Your task to perform on an android device: check data usage Image 0: 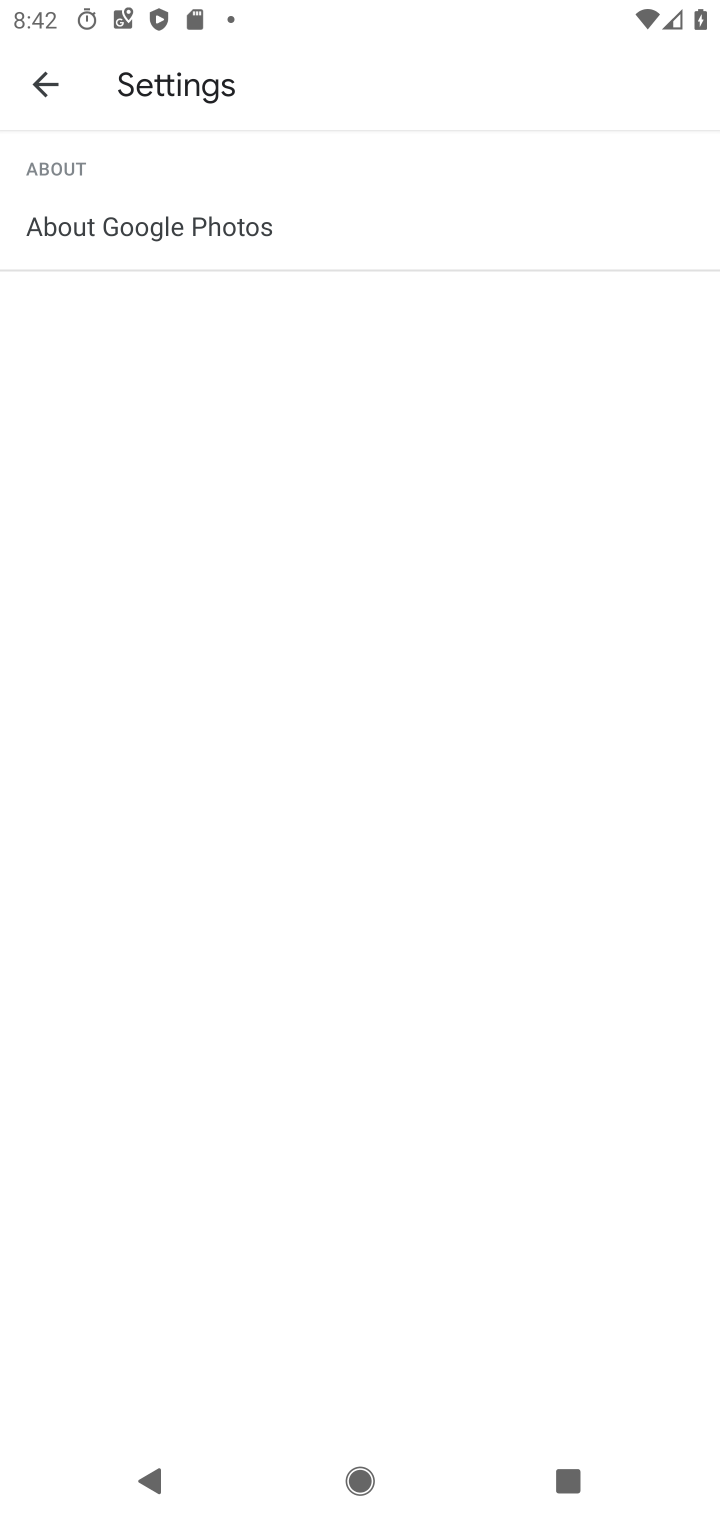
Step 0: press home button
Your task to perform on an android device: check data usage Image 1: 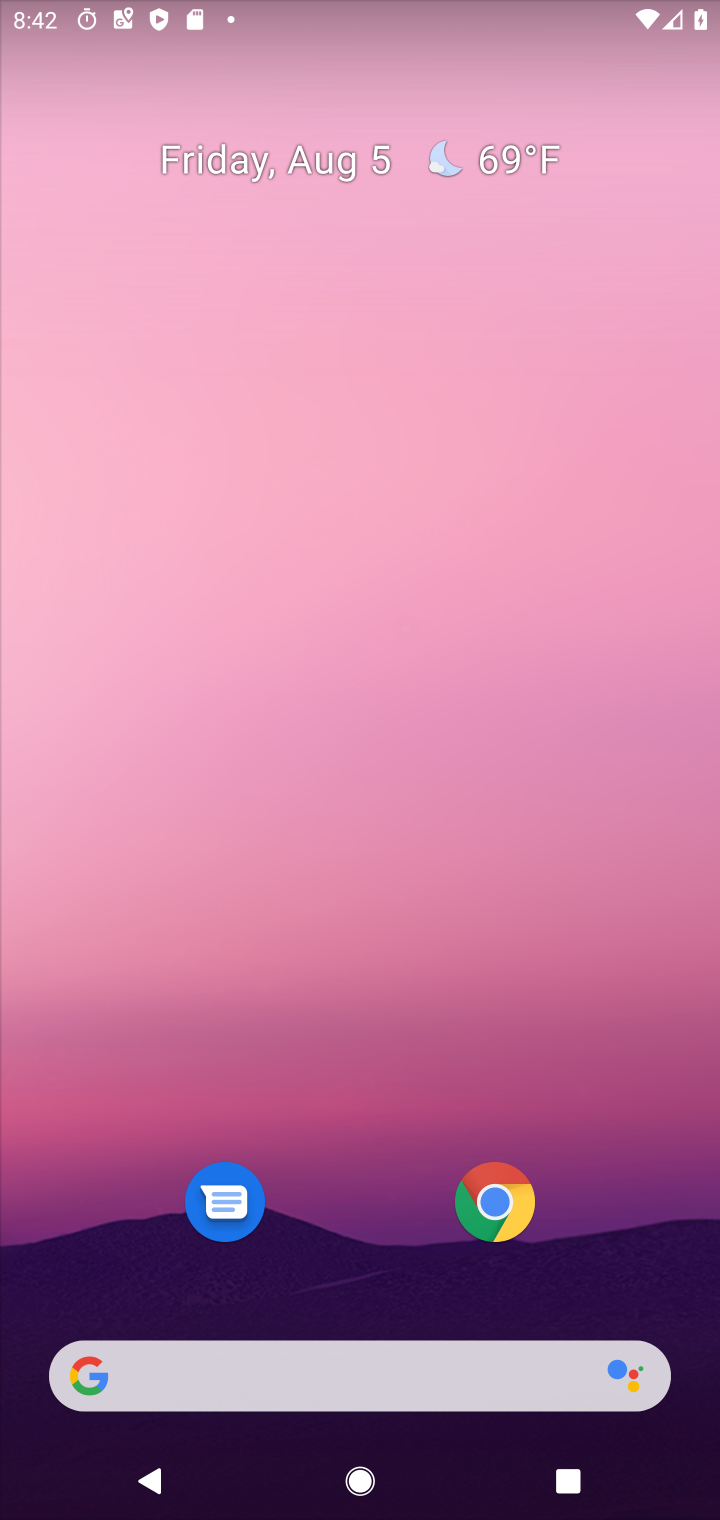
Step 1: drag from (340, 1209) to (340, 13)
Your task to perform on an android device: check data usage Image 2: 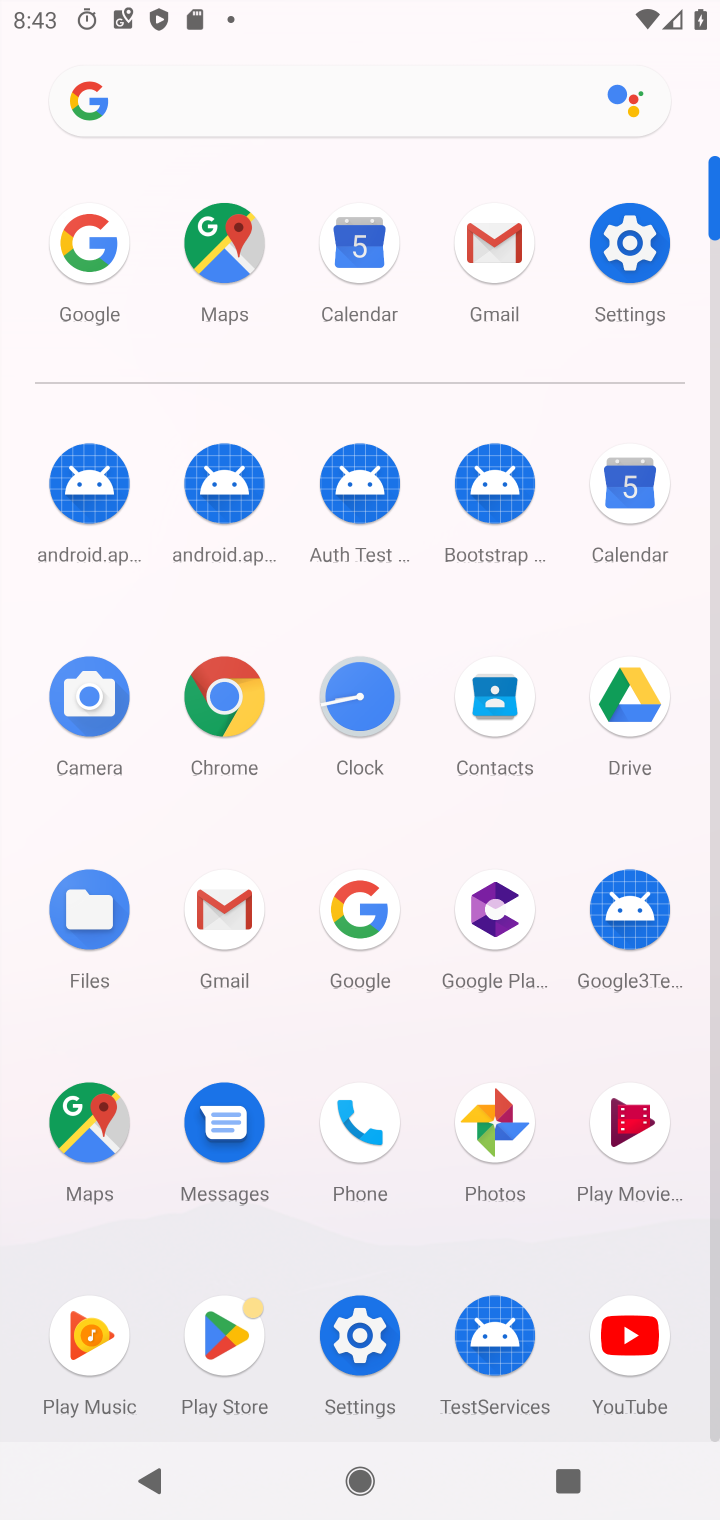
Step 2: click (357, 1334)
Your task to perform on an android device: check data usage Image 3: 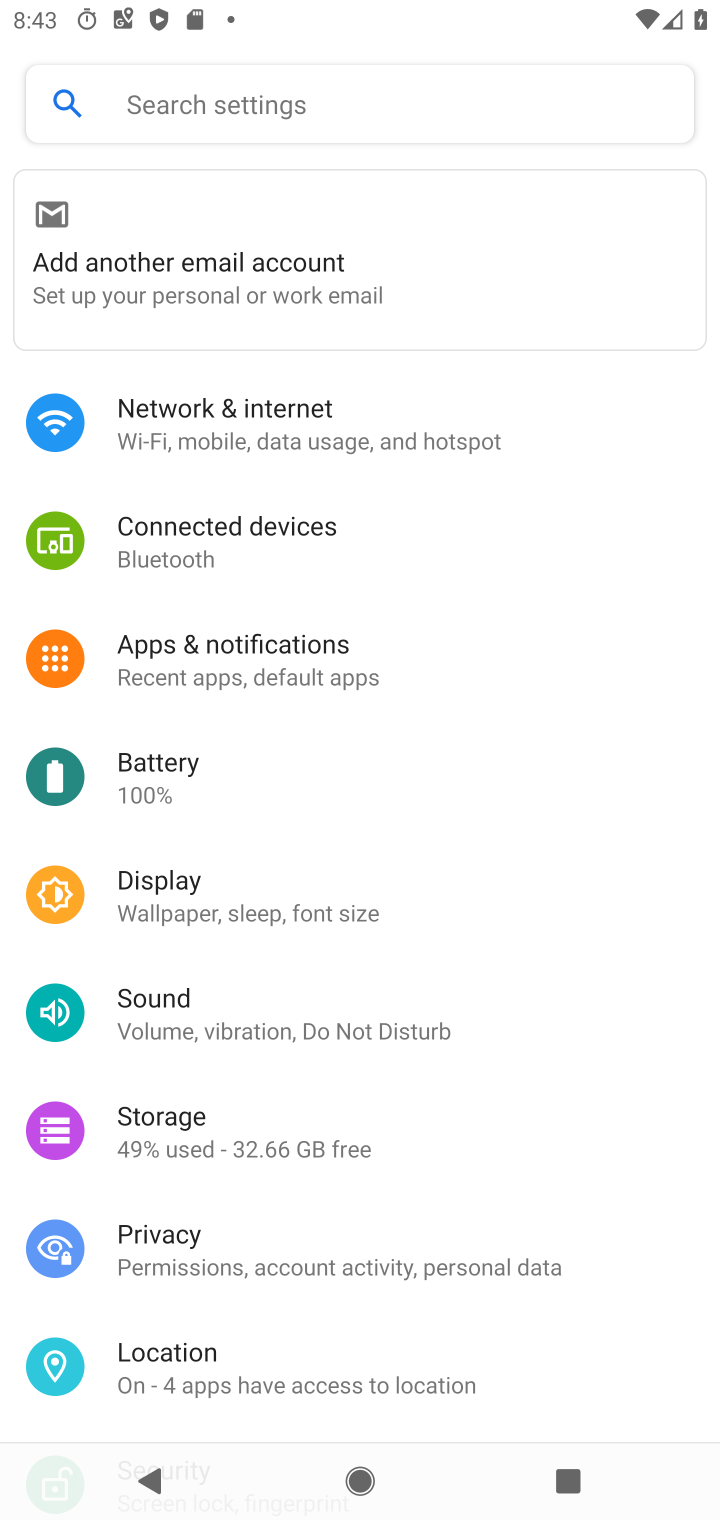
Step 3: click (372, 398)
Your task to perform on an android device: check data usage Image 4: 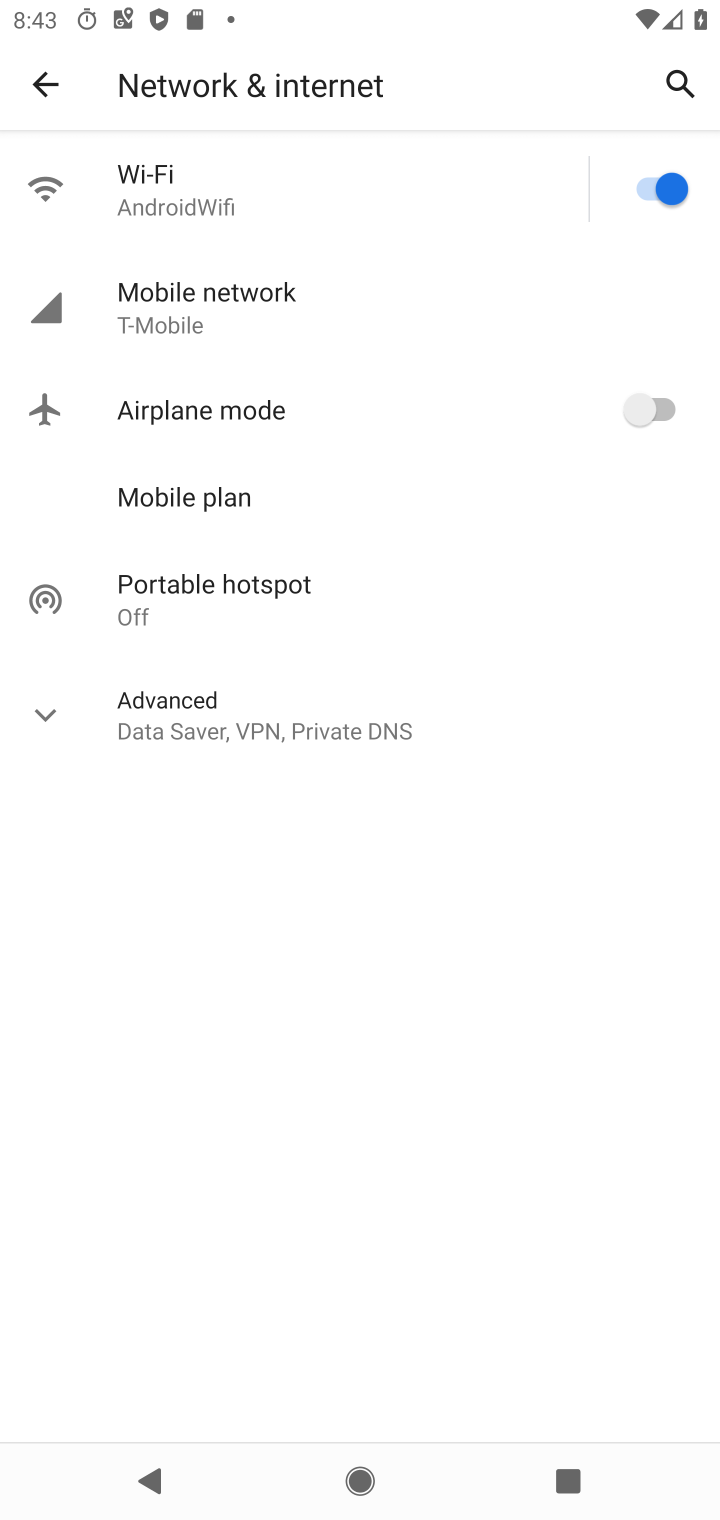
Step 4: click (273, 311)
Your task to perform on an android device: check data usage Image 5: 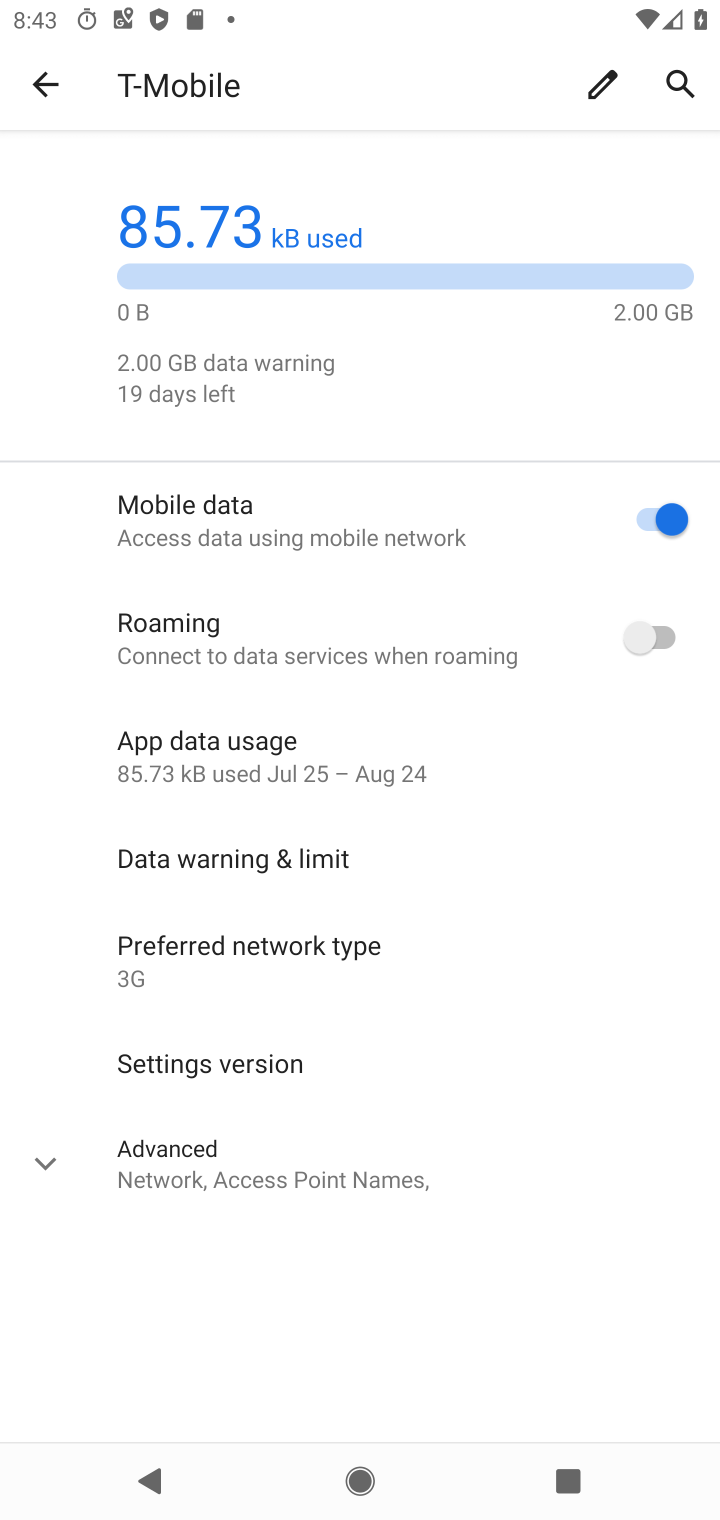
Step 5: click (268, 760)
Your task to perform on an android device: check data usage Image 6: 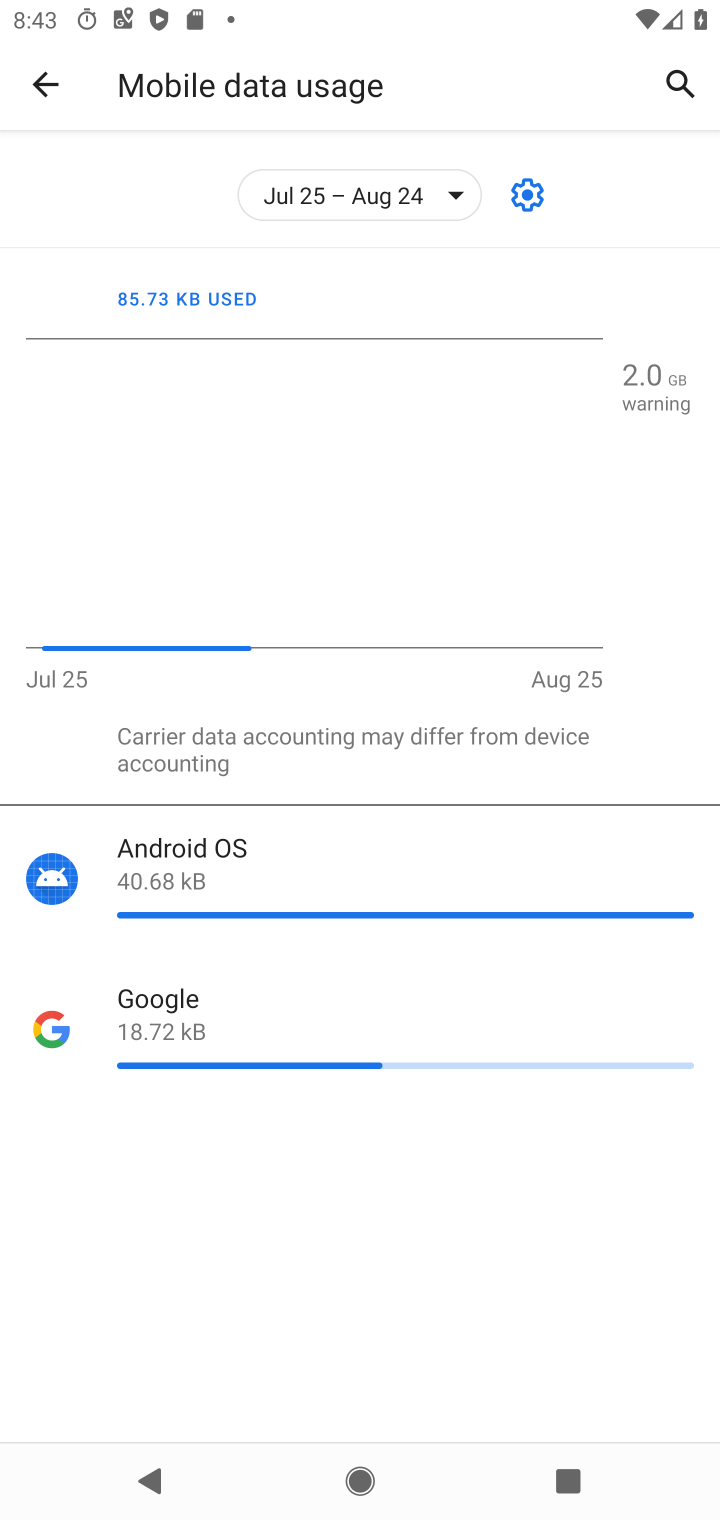
Step 6: task complete